Your task to perform on an android device: toggle airplane mode Image 0: 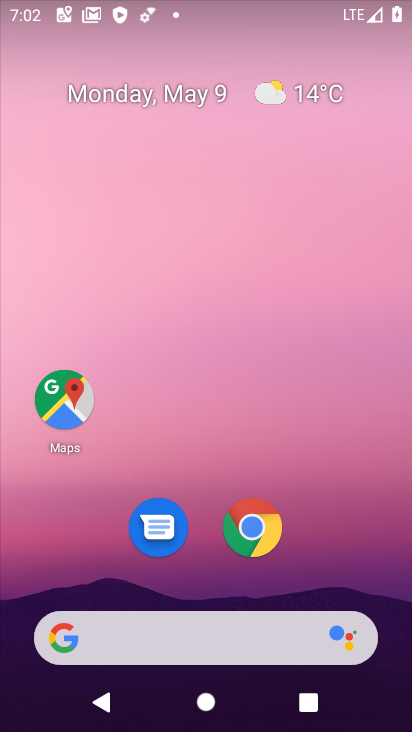
Step 0: drag from (328, 566) to (335, 9)
Your task to perform on an android device: toggle airplane mode Image 1: 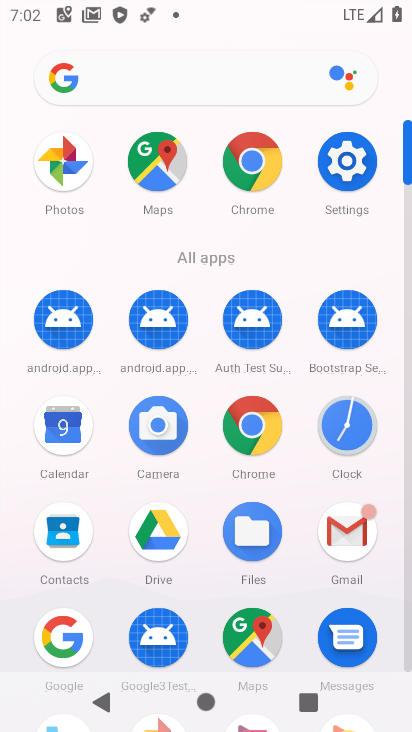
Step 1: click (345, 163)
Your task to perform on an android device: toggle airplane mode Image 2: 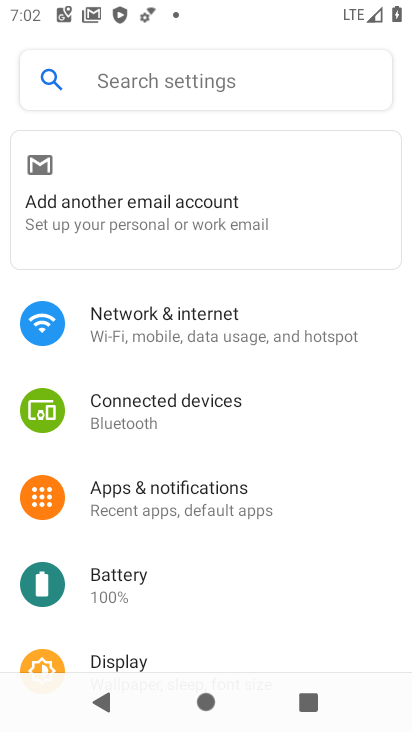
Step 2: click (157, 324)
Your task to perform on an android device: toggle airplane mode Image 3: 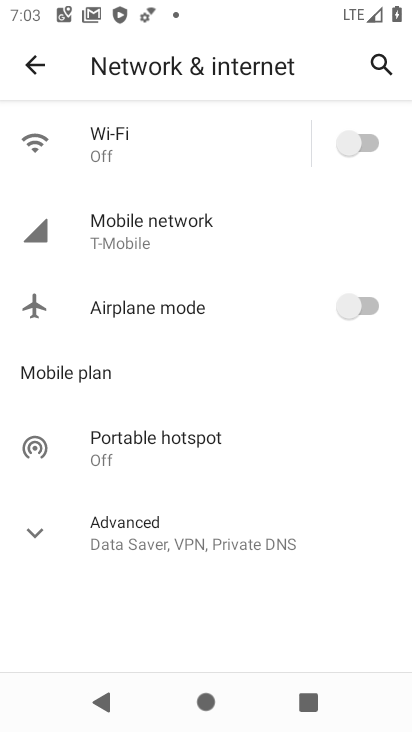
Step 3: click (352, 308)
Your task to perform on an android device: toggle airplane mode Image 4: 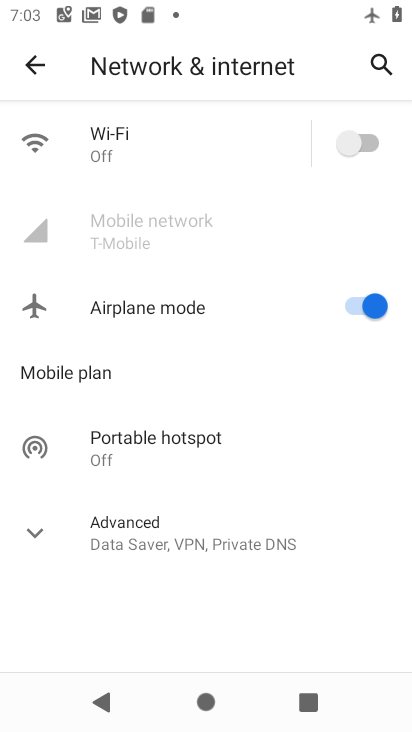
Step 4: task complete